Your task to perform on an android device: clear history in the chrome app Image 0: 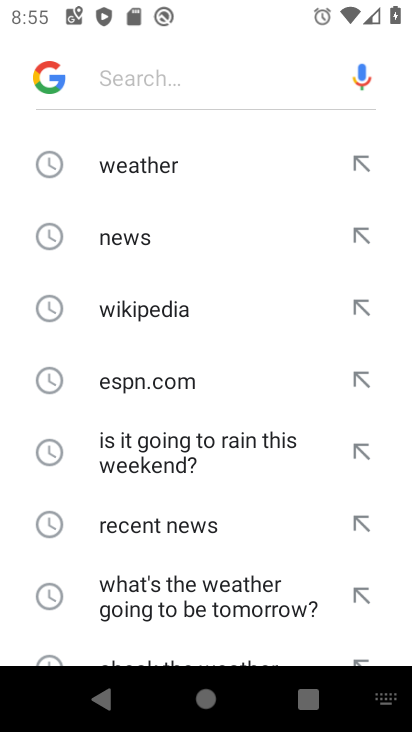
Step 0: press home button
Your task to perform on an android device: clear history in the chrome app Image 1: 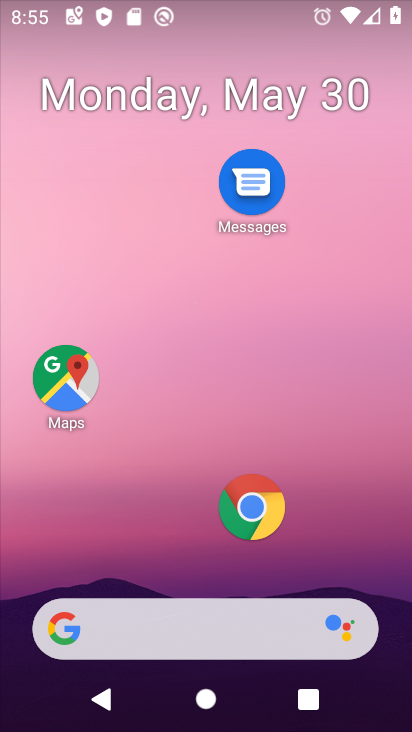
Step 1: click (255, 516)
Your task to perform on an android device: clear history in the chrome app Image 2: 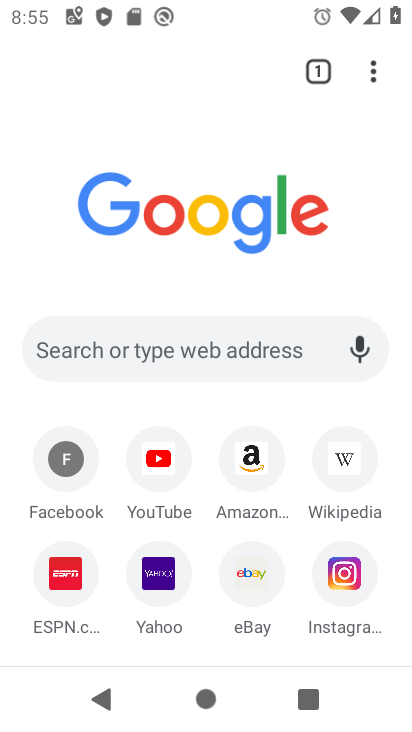
Step 2: click (377, 73)
Your task to perform on an android device: clear history in the chrome app Image 3: 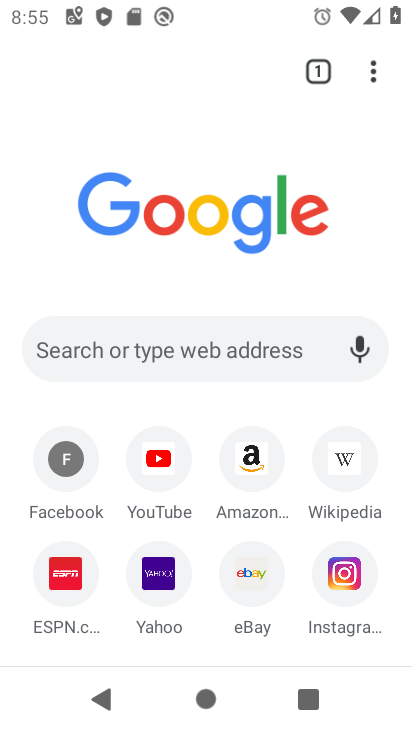
Step 3: click (375, 75)
Your task to perform on an android device: clear history in the chrome app Image 4: 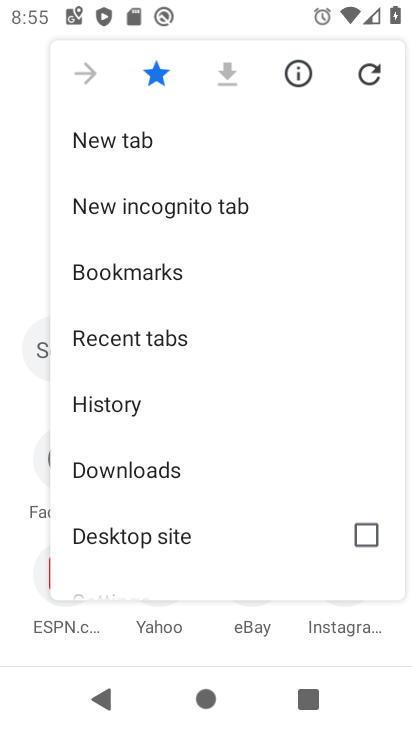
Step 4: click (118, 400)
Your task to perform on an android device: clear history in the chrome app Image 5: 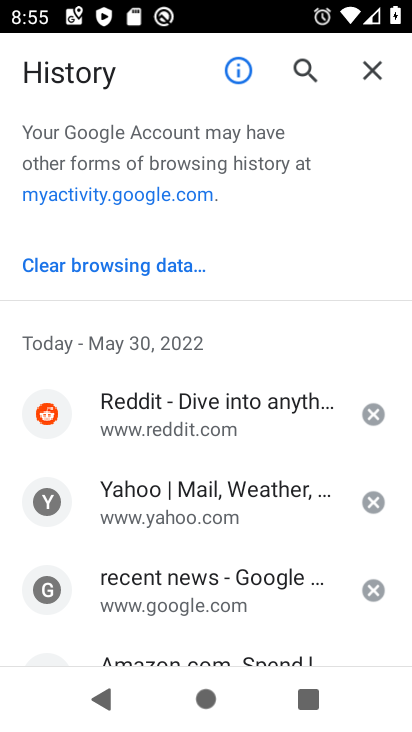
Step 5: click (165, 271)
Your task to perform on an android device: clear history in the chrome app Image 6: 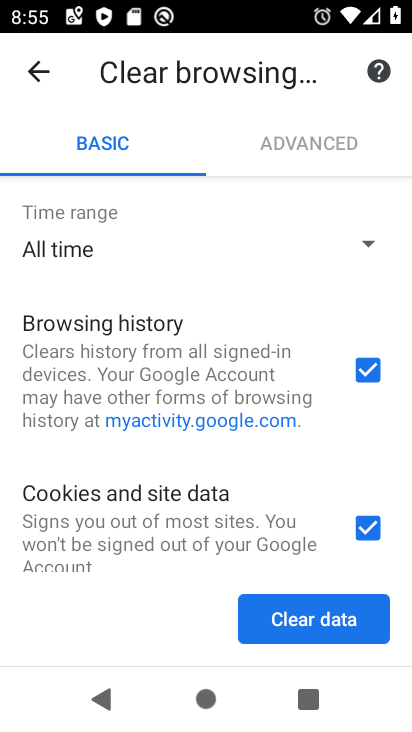
Step 6: click (287, 616)
Your task to perform on an android device: clear history in the chrome app Image 7: 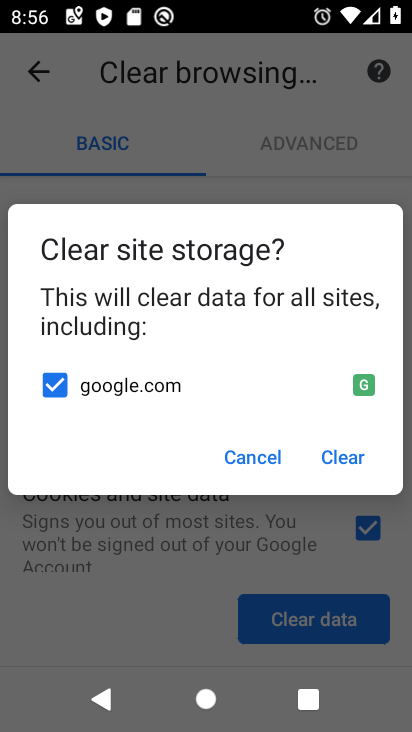
Step 7: click (348, 456)
Your task to perform on an android device: clear history in the chrome app Image 8: 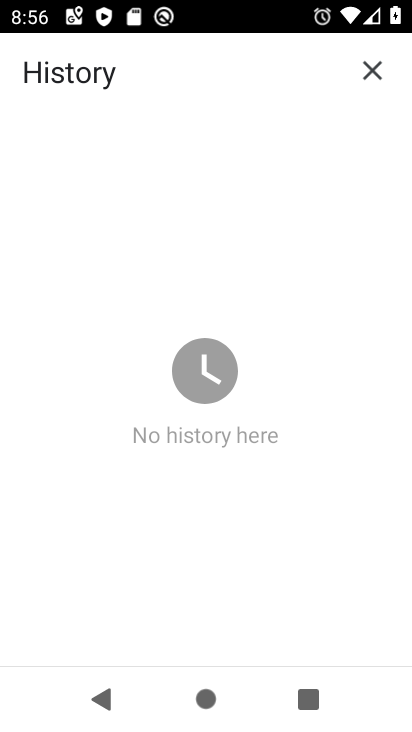
Step 8: task complete